Your task to perform on an android device: Search for Mexican restaurants on Maps Image 0: 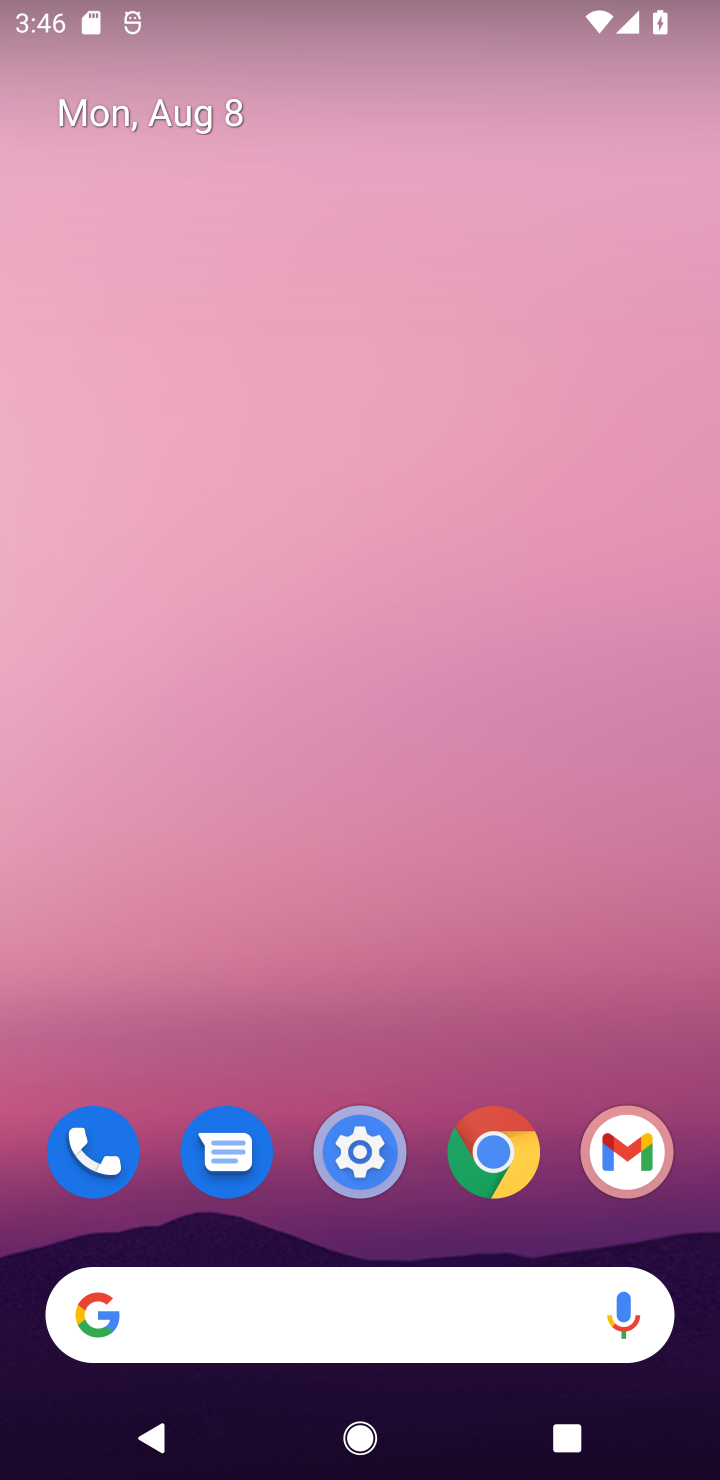
Step 0: drag from (357, 1243) to (664, 42)
Your task to perform on an android device: Search for Mexican restaurants on Maps Image 1: 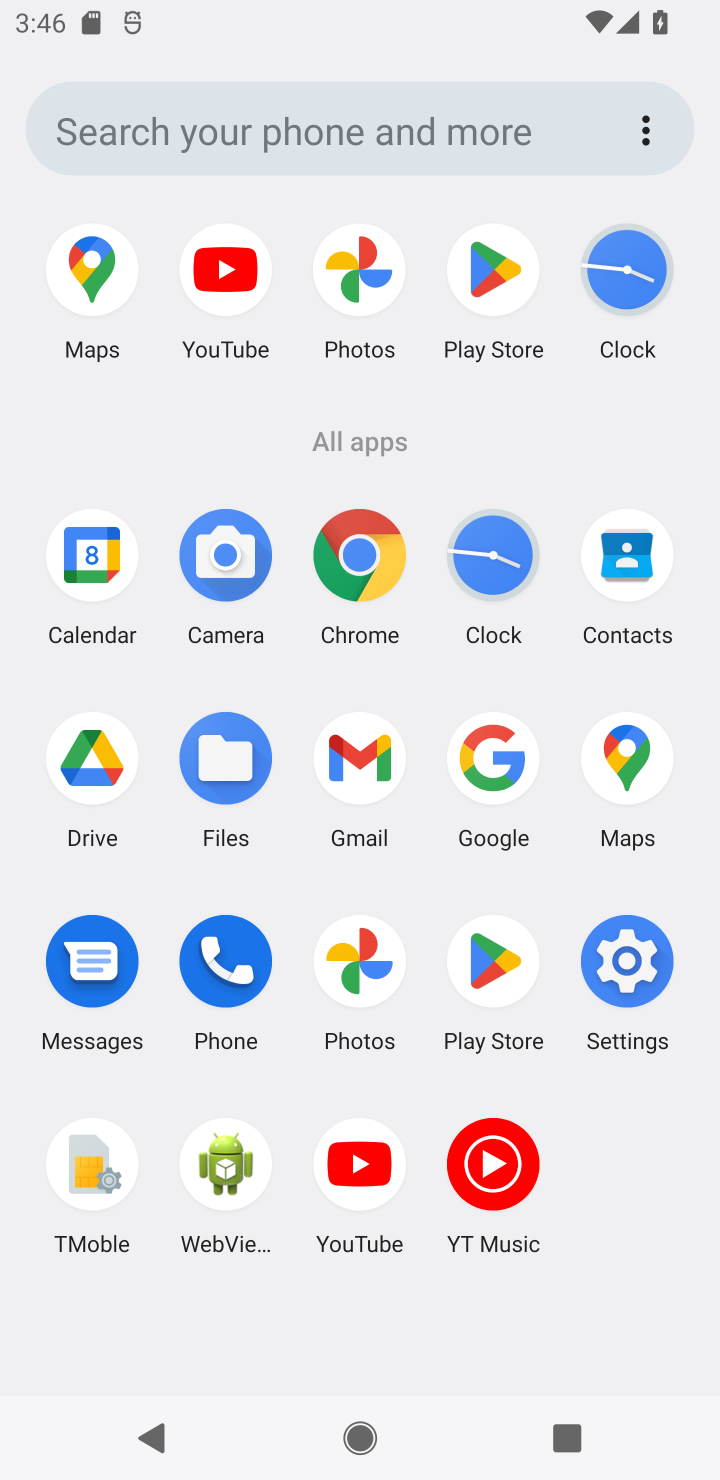
Step 1: click (616, 761)
Your task to perform on an android device: Search for Mexican restaurants on Maps Image 2: 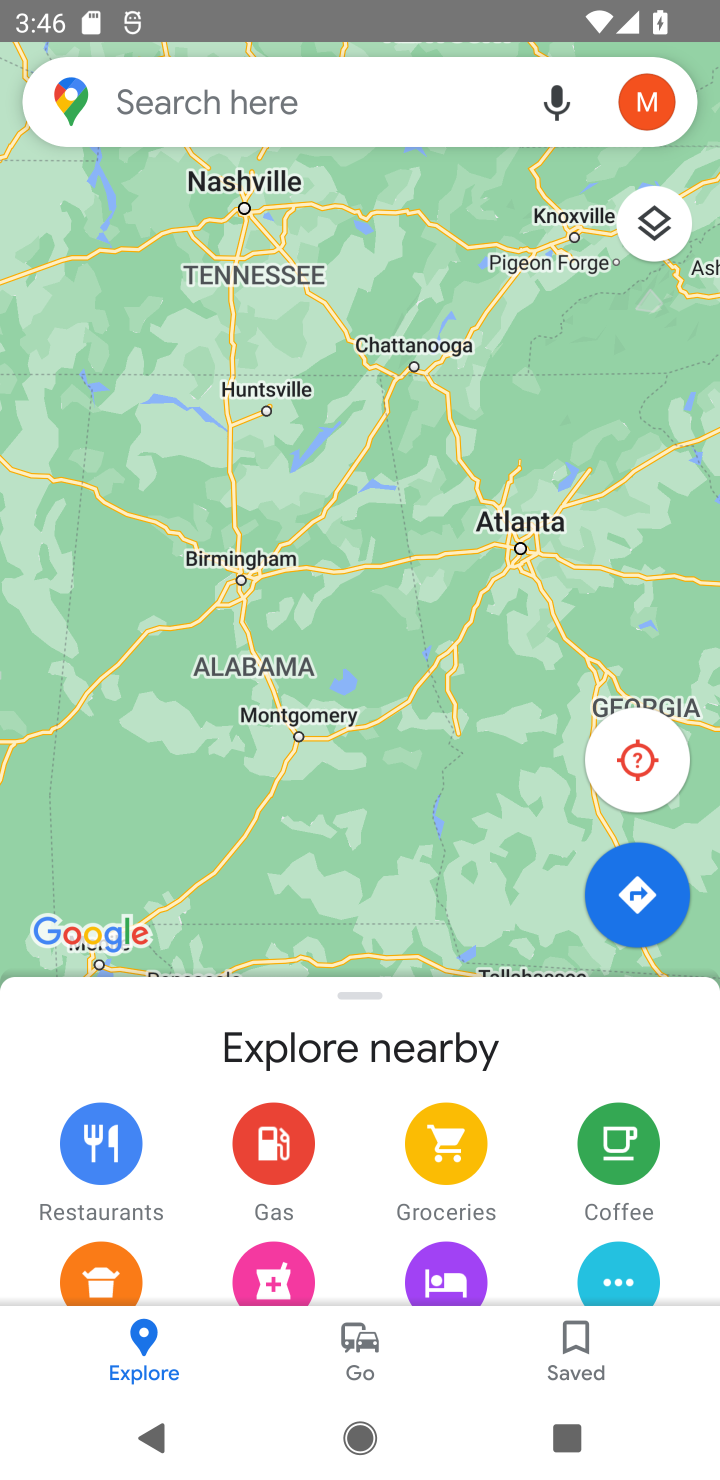
Step 2: click (247, 86)
Your task to perform on an android device: Search for Mexican restaurants on Maps Image 3: 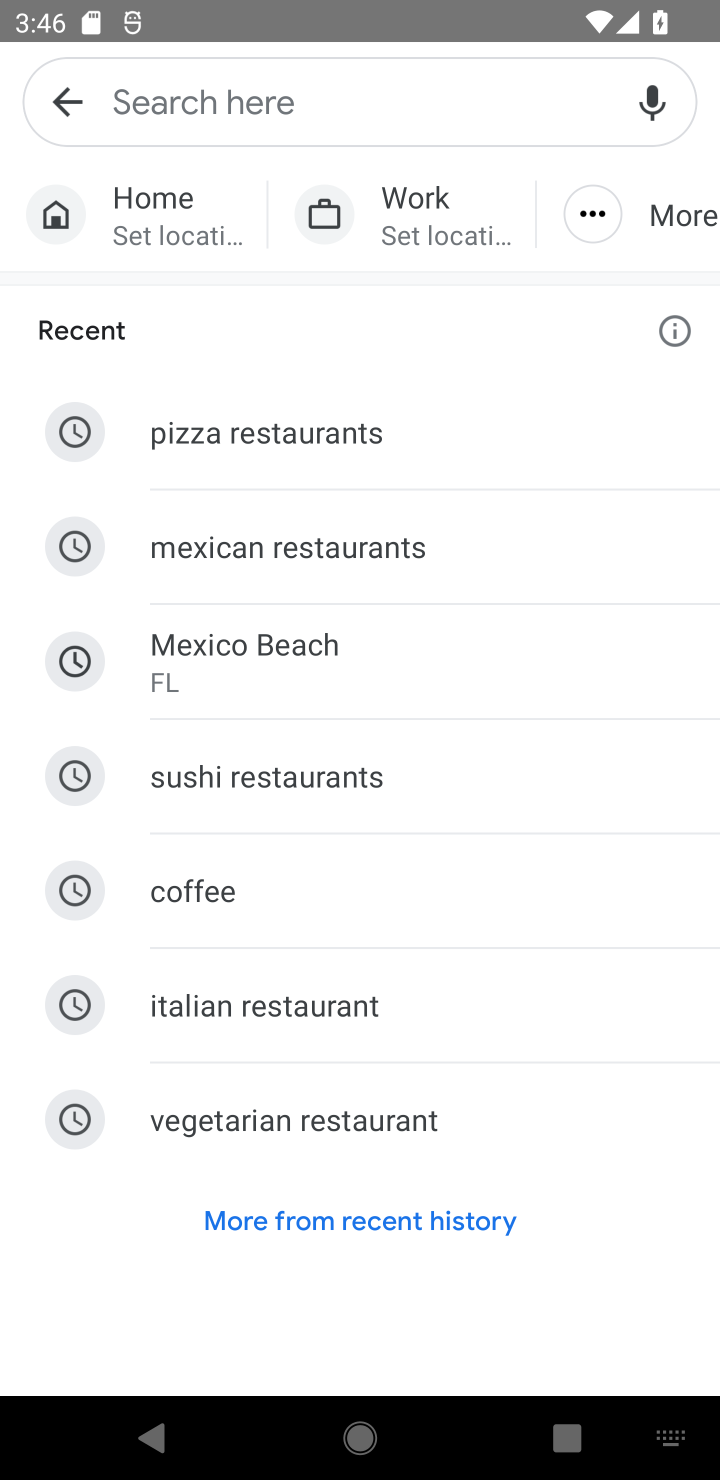
Step 3: click (295, 542)
Your task to perform on an android device: Search for Mexican restaurants on Maps Image 4: 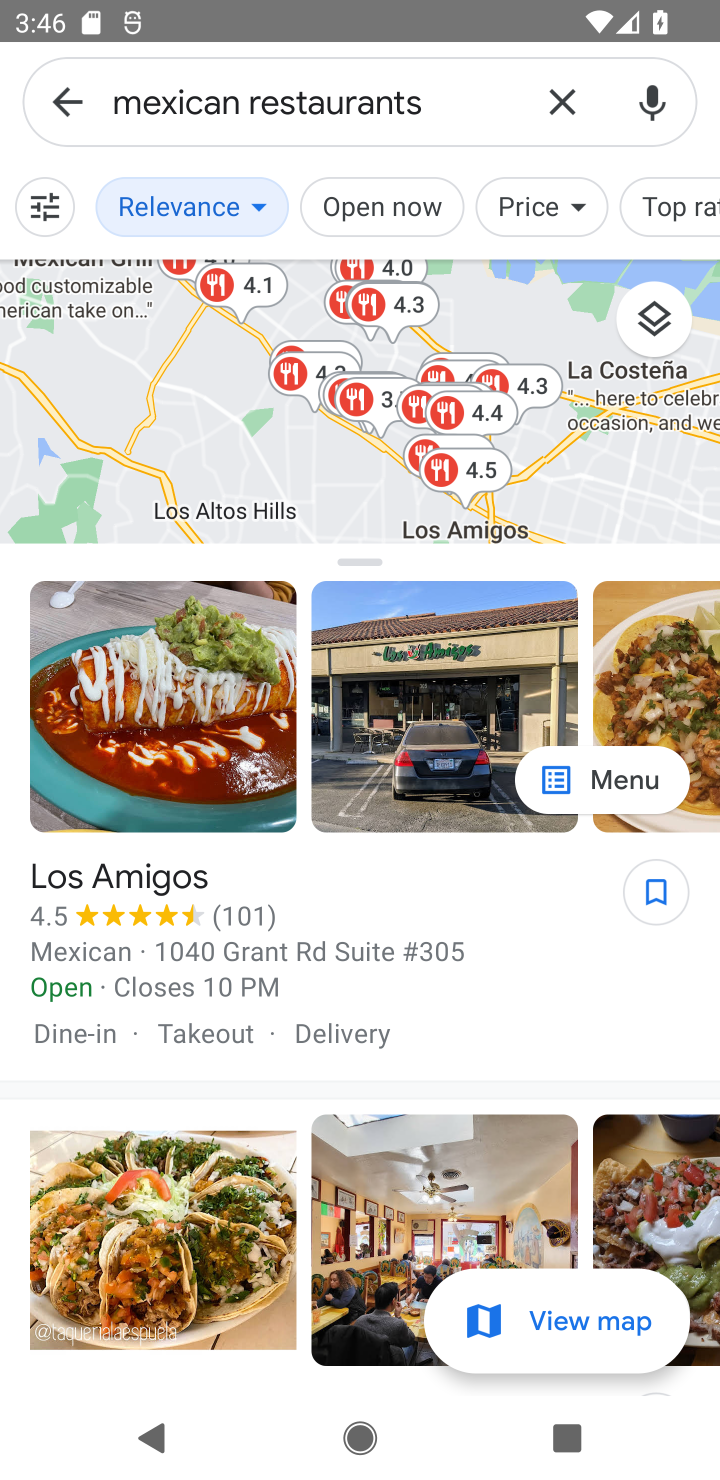
Step 4: task complete